Your task to perform on an android device: toggle notifications settings in the gmail app Image 0: 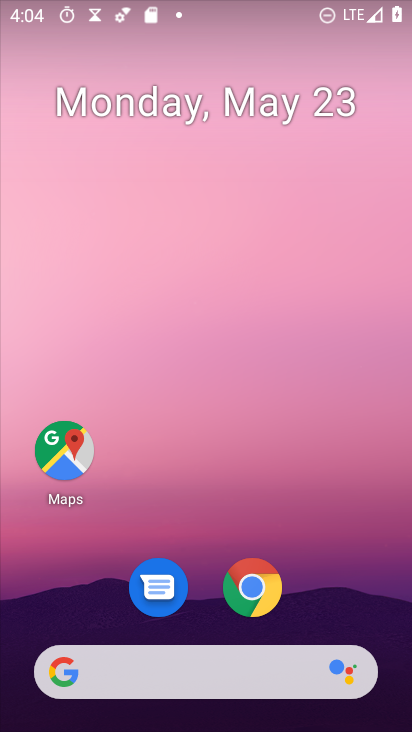
Step 0: drag from (207, 604) to (201, 163)
Your task to perform on an android device: toggle notifications settings in the gmail app Image 1: 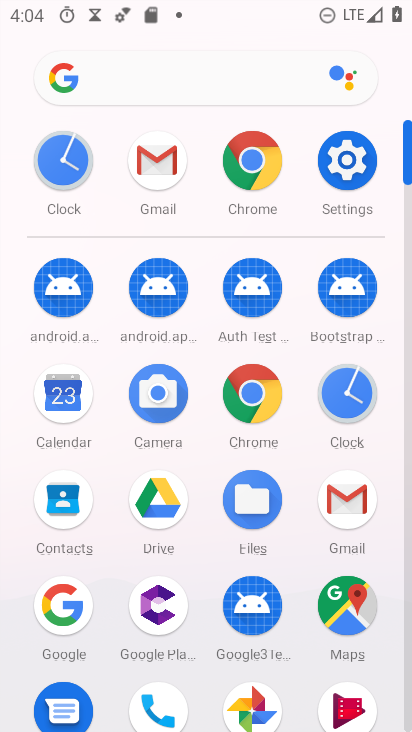
Step 1: click (362, 517)
Your task to perform on an android device: toggle notifications settings in the gmail app Image 2: 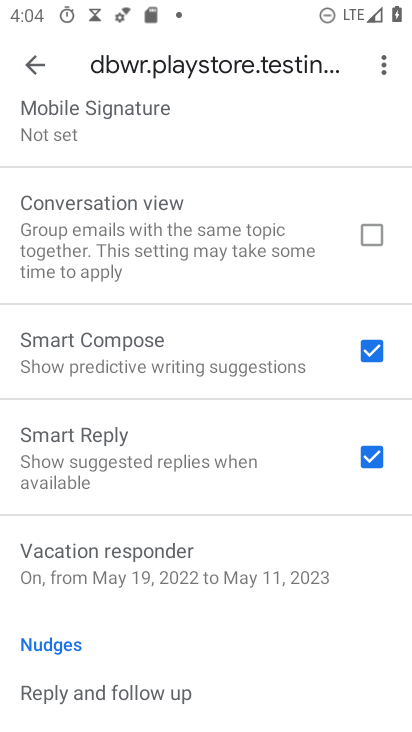
Step 2: click (24, 58)
Your task to perform on an android device: toggle notifications settings in the gmail app Image 3: 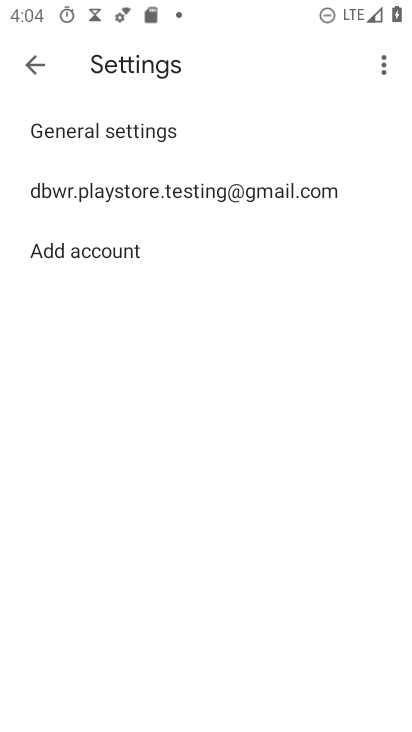
Step 3: click (156, 144)
Your task to perform on an android device: toggle notifications settings in the gmail app Image 4: 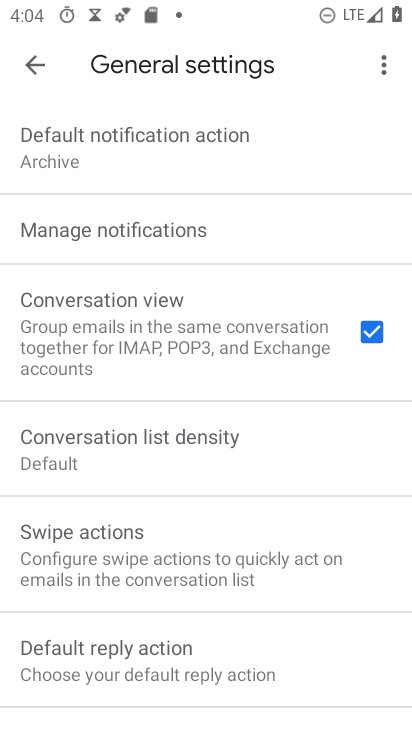
Step 4: click (151, 224)
Your task to perform on an android device: toggle notifications settings in the gmail app Image 5: 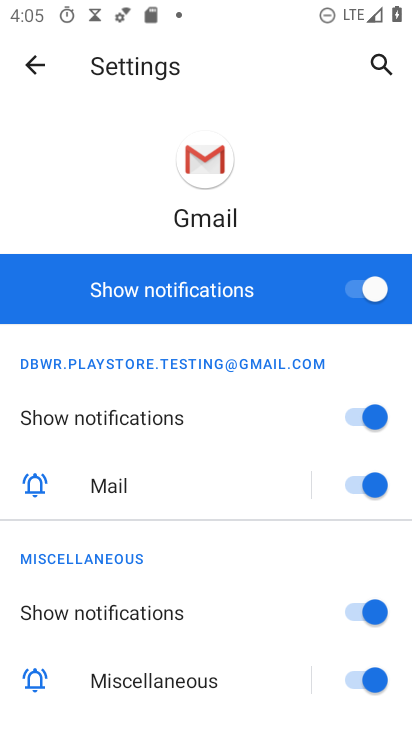
Step 5: click (339, 287)
Your task to perform on an android device: toggle notifications settings in the gmail app Image 6: 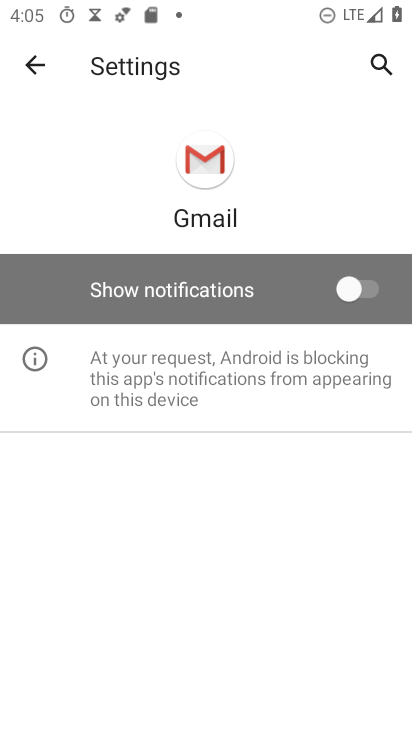
Step 6: task complete